Your task to perform on an android device: Open the calendar and show me this week's events? Image 0: 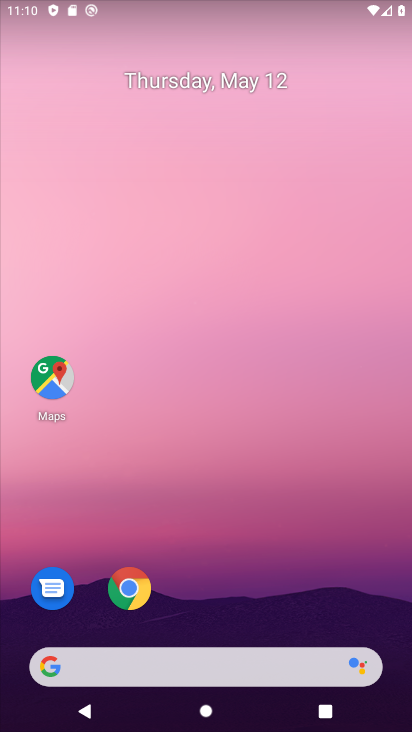
Step 0: drag from (182, 614) to (256, 205)
Your task to perform on an android device: Open the calendar and show me this week's events? Image 1: 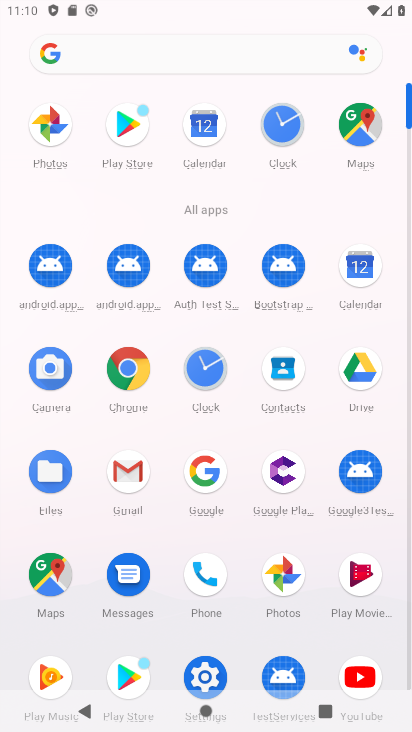
Step 1: click (366, 271)
Your task to perform on an android device: Open the calendar and show me this week's events? Image 2: 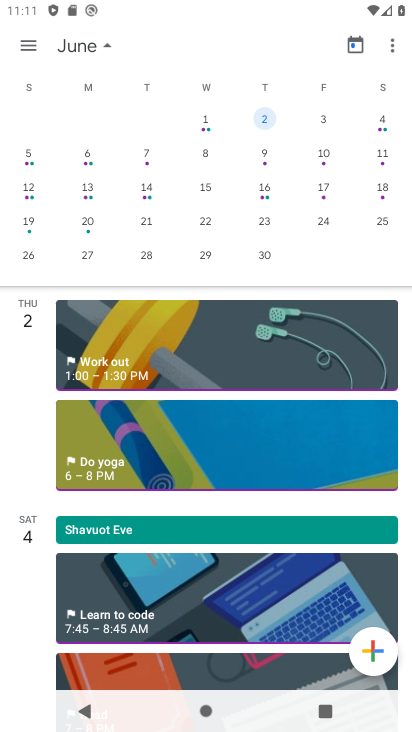
Step 2: drag from (57, 194) to (404, 188)
Your task to perform on an android device: Open the calendar and show me this week's events? Image 3: 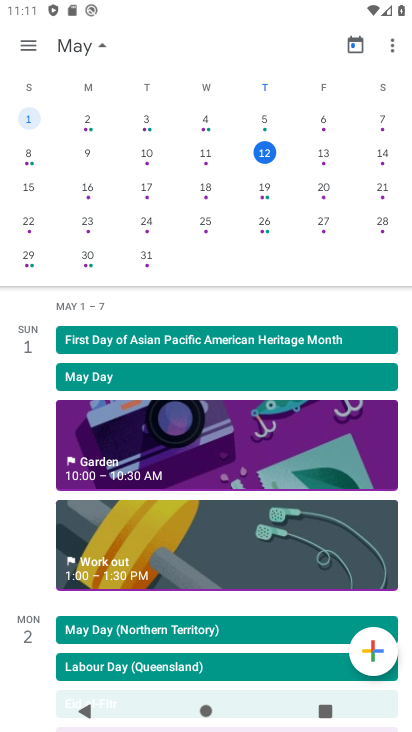
Step 3: click (262, 192)
Your task to perform on an android device: Open the calendar and show me this week's events? Image 4: 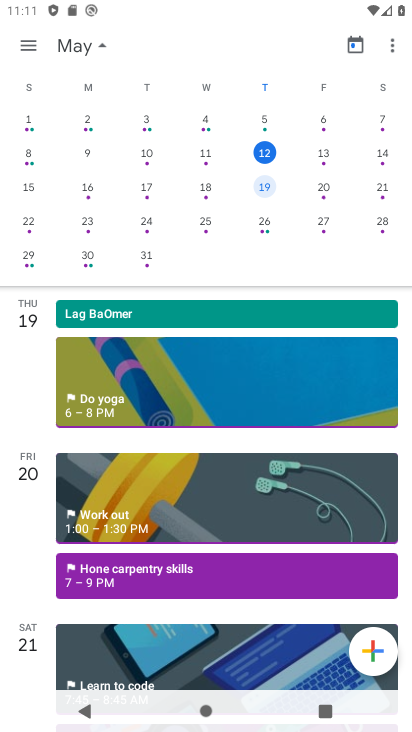
Step 4: task complete